Your task to perform on an android device: Go to Android settings Image 0: 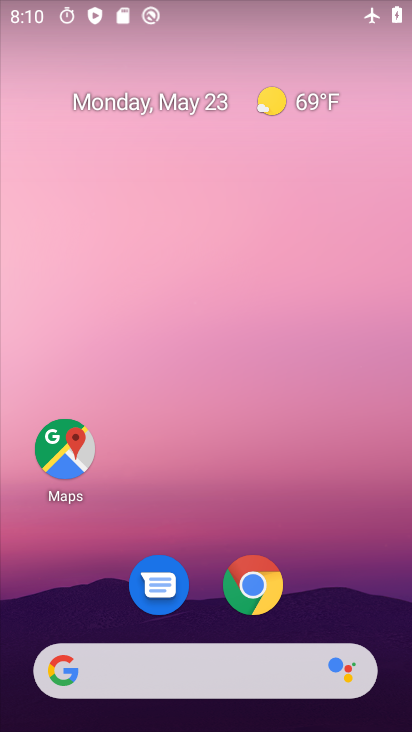
Step 0: drag from (202, 483) to (245, 60)
Your task to perform on an android device: Go to Android settings Image 1: 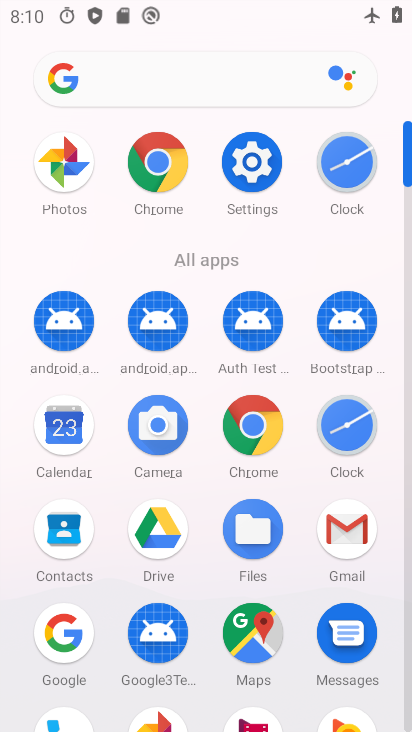
Step 1: click (253, 162)
Your task to perform on an android device: Go to Android settings Image 2: 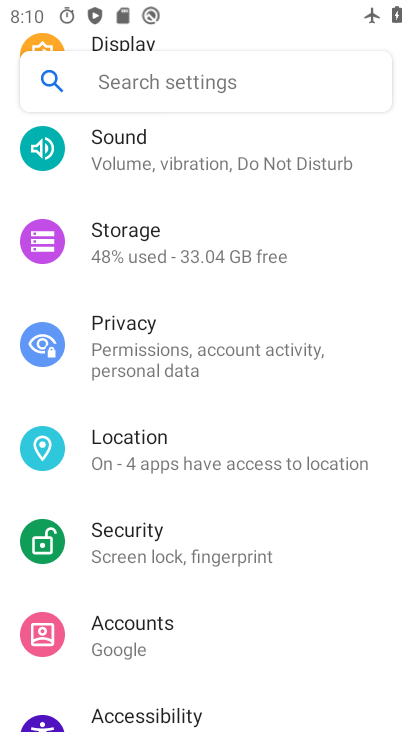
Step 2: drag from (210, 508) to (243, 68)
Your task to perform on an android device: Go to Android settings Image 3: 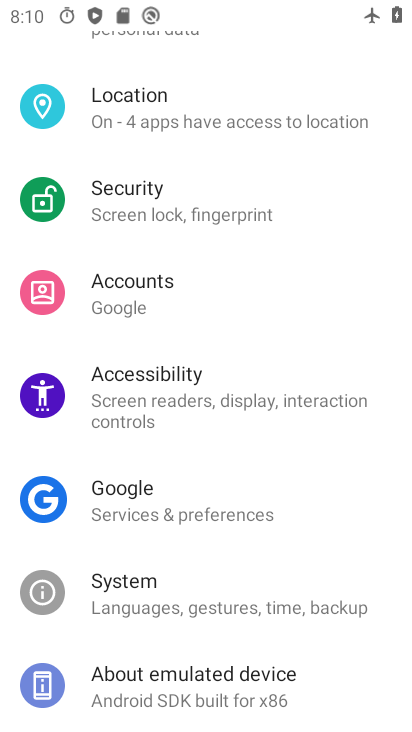
Step 3: click (209, 690)
Your task to perform on an android device: Go to Android settings Image 4: 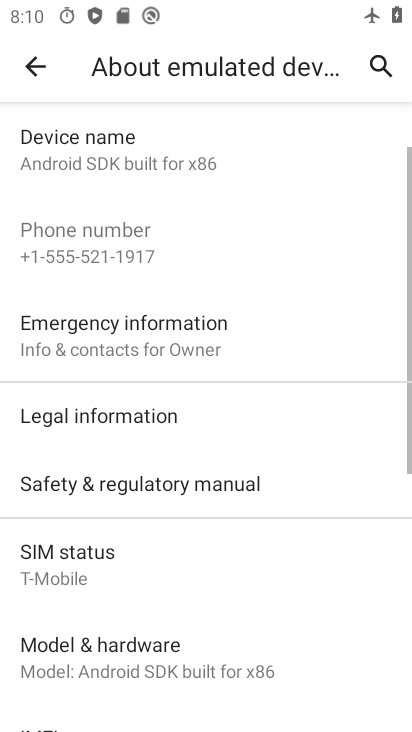
Step 4: task complete